Your task to perform on an android device: Go to ESPN.com Image 0: 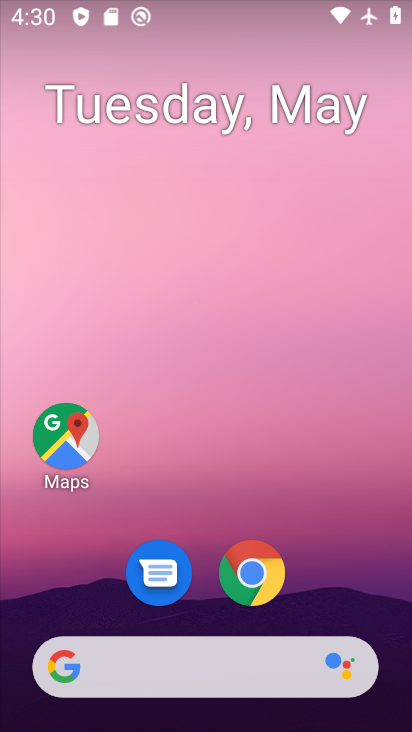
Step 0: drag from (314, 589) to (276, 137)
Your task to perform on an android device: Go to ESPN.com Image 1: 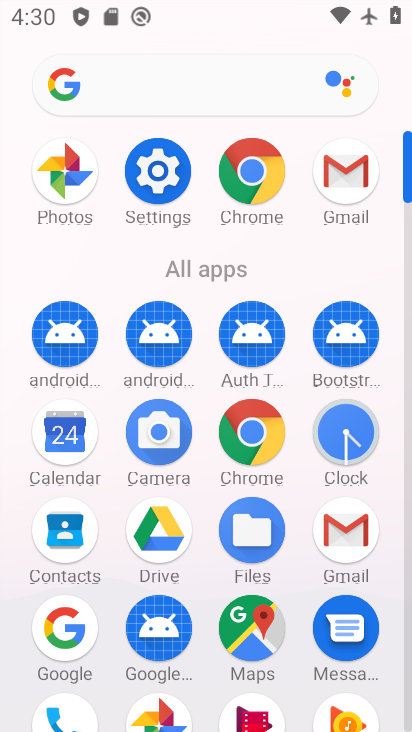
Step 1: click (260, 432)
Your task to perform on an android device: Go to ESPN.com Image 2: 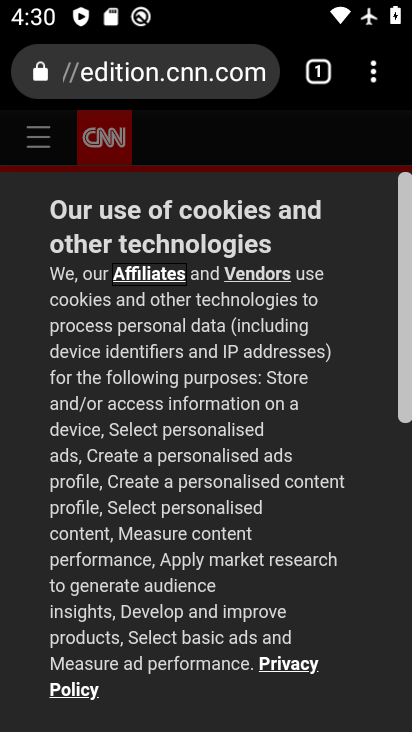
Step 2: click (201, 80)
Your task to perform on an android device: Go to ESPN.com Image 3: 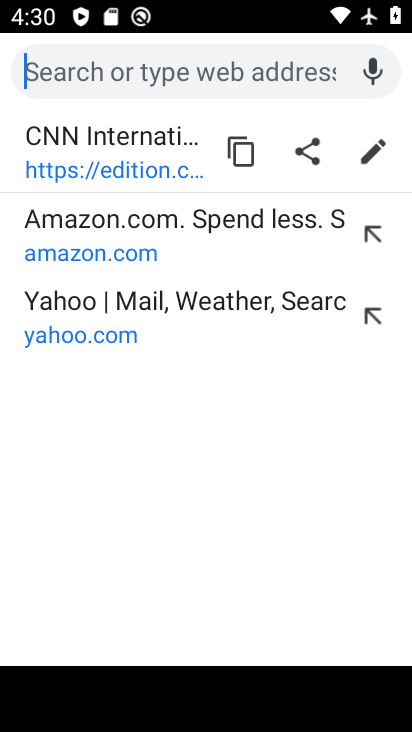
Step 3: type "espn.com"
Your task to perform on an android device: Go to ESPN.com Image 4: 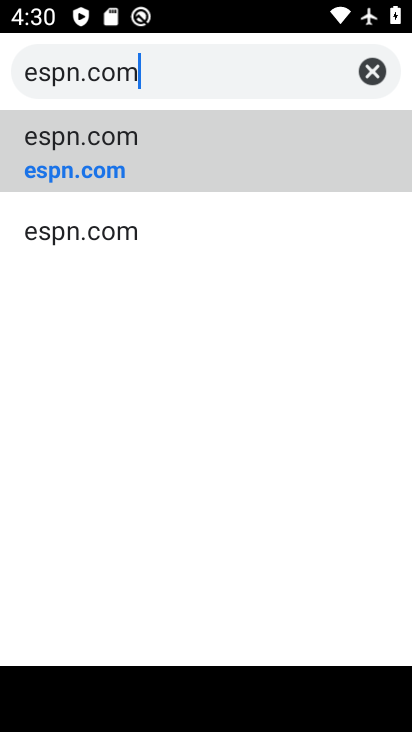
Step 4: click (89, 164)
Your task to perform on an android device: Go to ESPN.com Image 5: 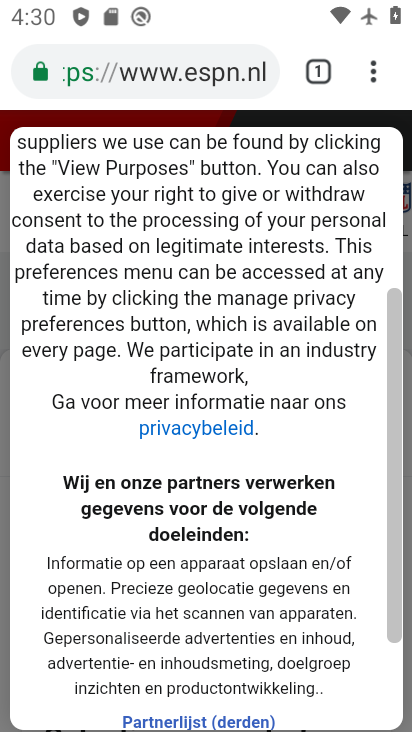
Step 5: task complete